Your task to perform on an android device: Search for Mexican restaurants on Maps Image 0: 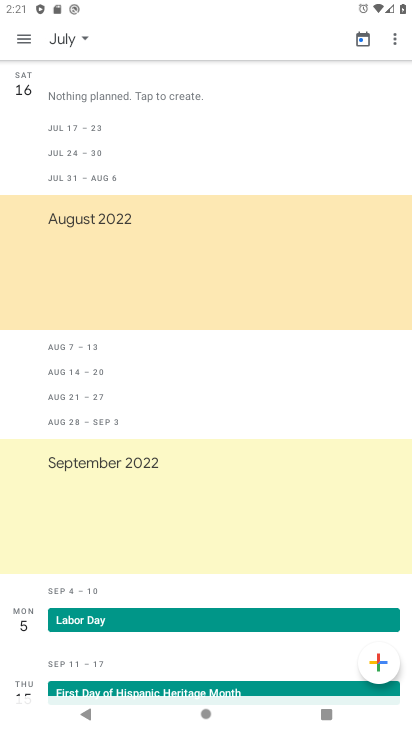
Step 0: press home button
Your task to perform on an android device: Search for Mexican restaurants on Maps Image 1: 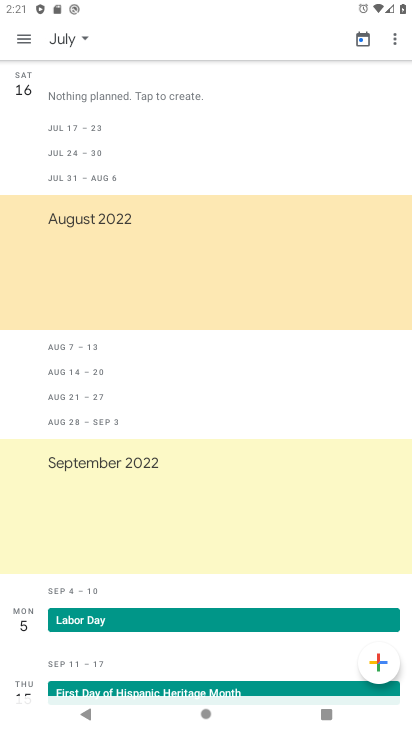
Step 1: press home button
Your task to perform on an android device: Search for Mexican restaurants on Maps Image 2: 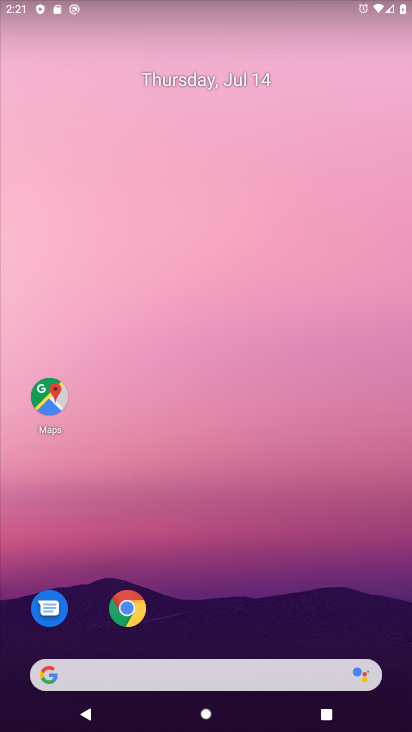
Step 2: drag from (240, 715) to (241, 250)
Your task to perform on an android device: Search for Mexican restaurants on Maps Image 3: 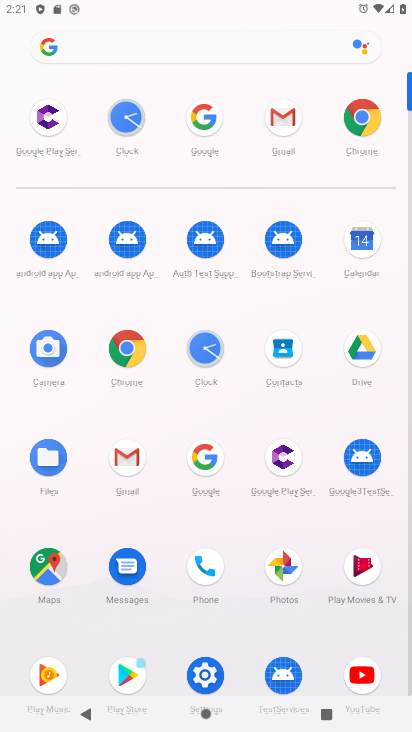
Step 3: click (53, 561)
Your task to perform on an android device: Search for Mexican restaurants on Maps Image 4: 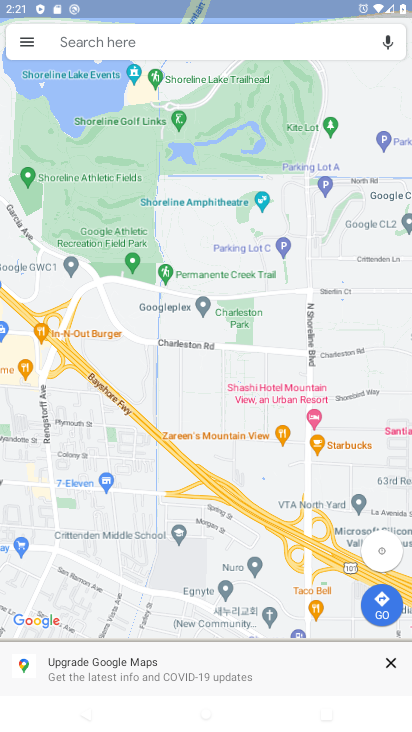
Step 4: click (239, 47)
Your task to perform on an android device: Search for Mexican restaurants on Maps Image 5: 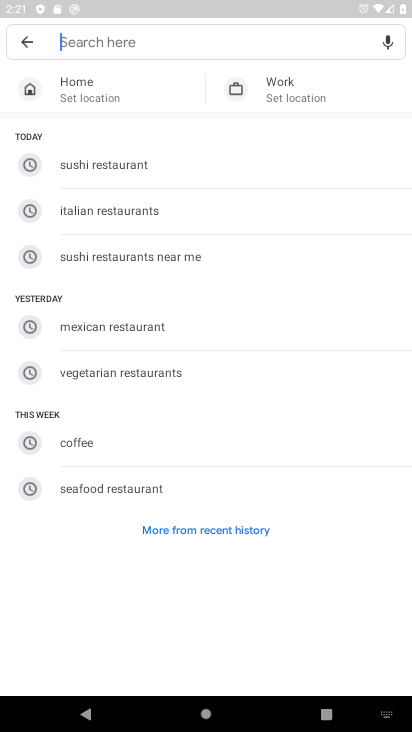
Step 5: type "Mexocan restaurants"
Your task to perform on an android device: Search for Mexican restaurants on Maps Image 6: 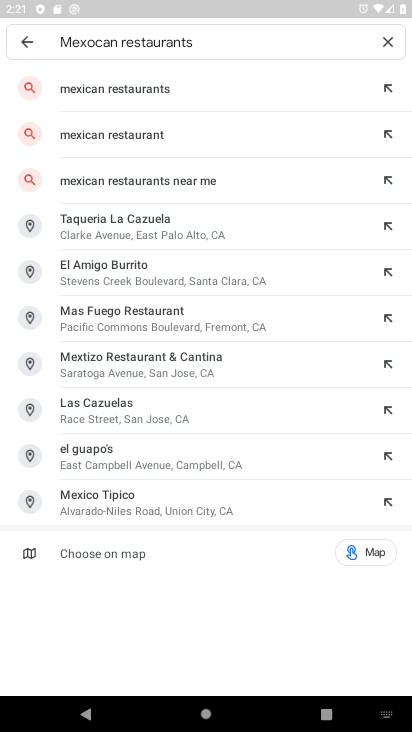
Step 6: click (151, 88)
Your task to perform on an android device: Search for Mexican restaurants on Maps Image 7: 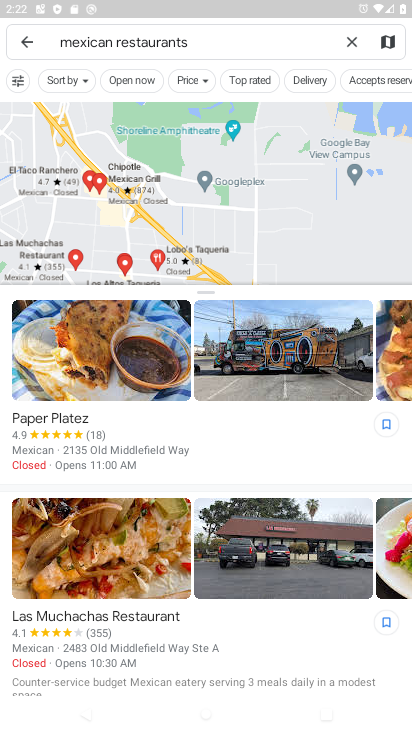
Step 7: task complete